Your task to perform on an android device: turn notification dots off Image 0: 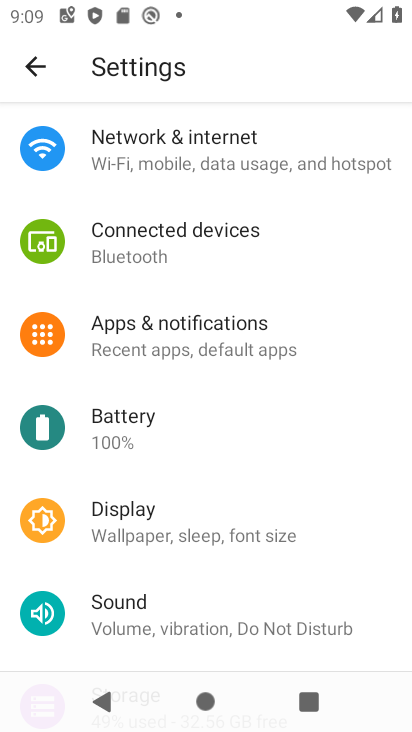
Step 0: click (228, 343)
Your task to perform on an android device: turn notification dots off Image 1: 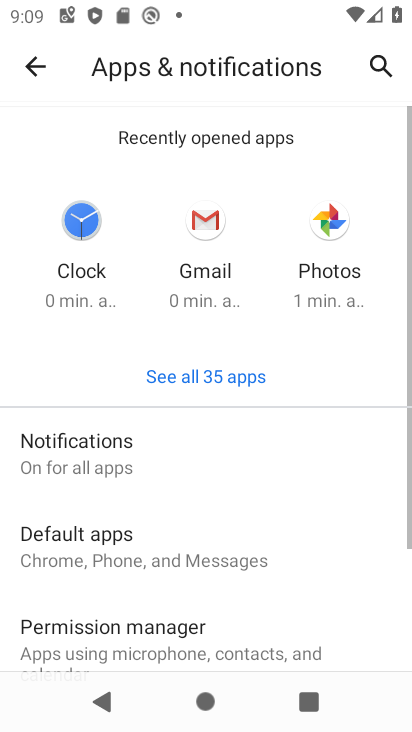
Step 1: click (118, 444)
Your task to perform on an android device: turn notification dots off Image 2: 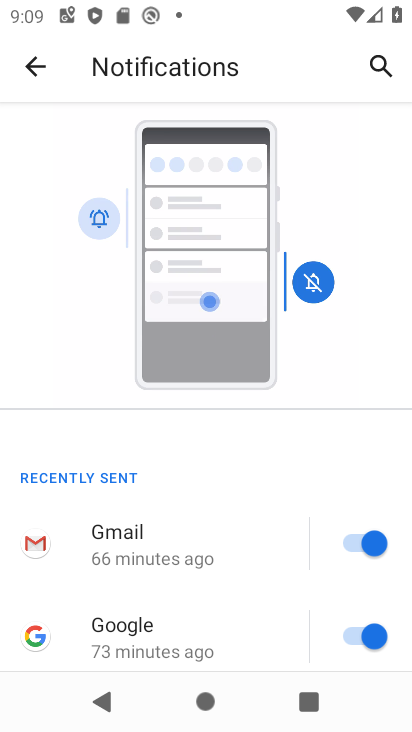
Step 2: drag from (181, 552) to (304, 14)
Your task to perform on an android device: turn notification dots off Image 3: 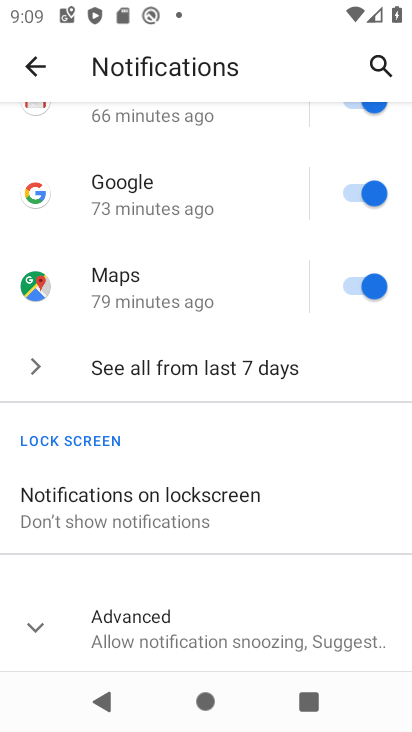
Step 3: click (39, 619)
Your task to perform on an android device: turn notification dots off Image 4: 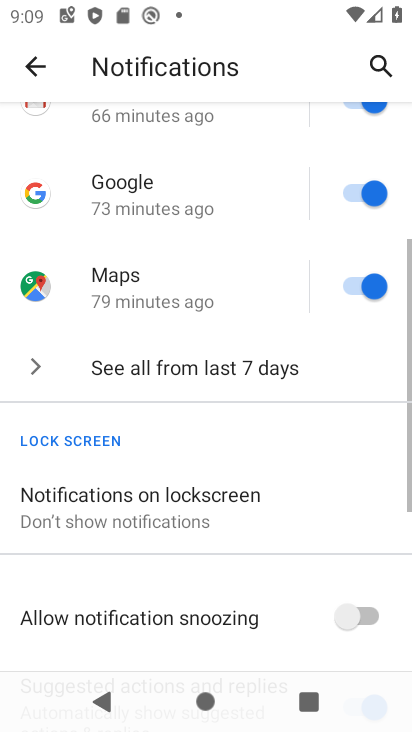
Step 4: drag from (244, 486) to (254, 38)
Your task to perform on an android device: turn notification dots off Image 5: 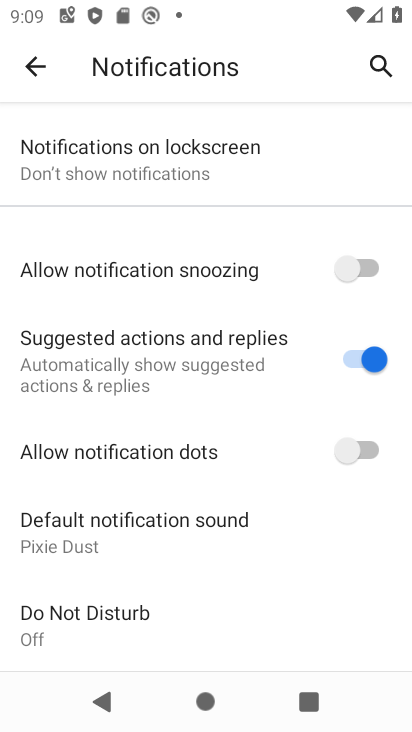
Step 5: click (362, 443)
Your task to perform on an android device: turn notification dots off Image 6: 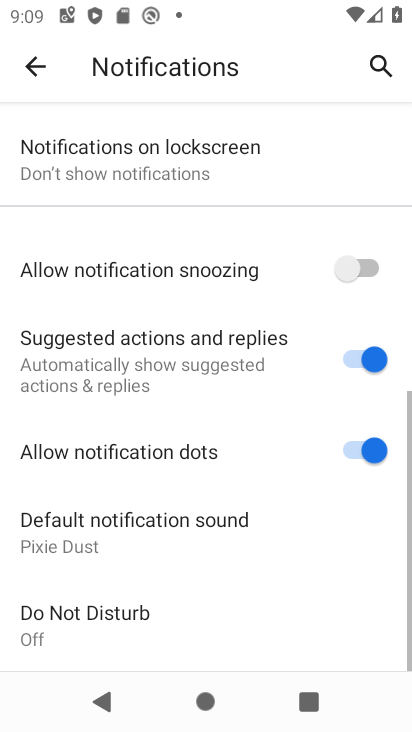
Step 6: click (362, 443)
Your task to perform on an android device: turn notification dots off Image 7: 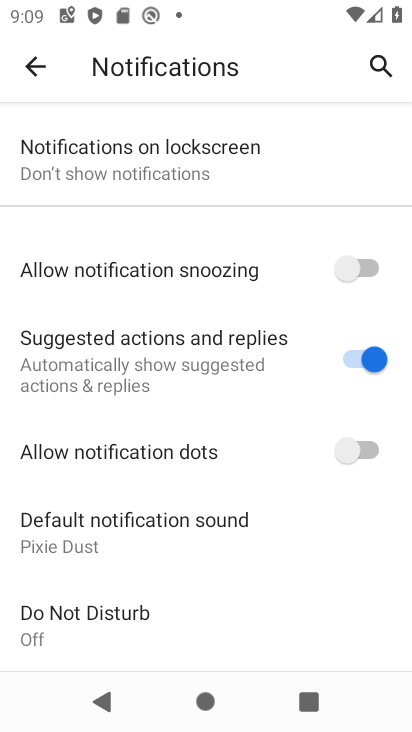
Step 7: task complete